Your task to perform on an android device: check the backup settings in the google photos Image 0: 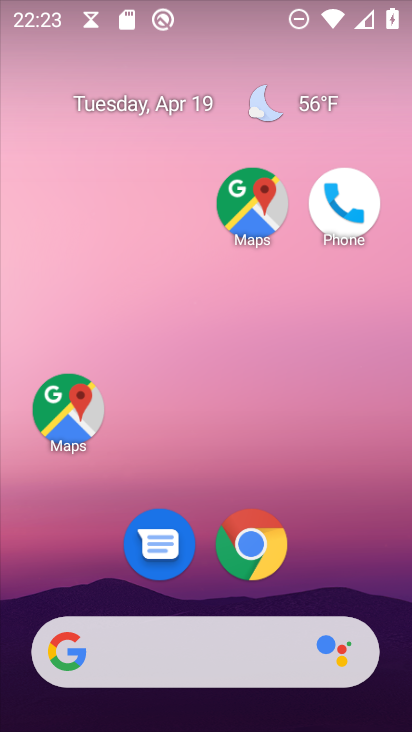
Step 0: drag from (252, 567) to (291, 234)
Your task to perform on an android device: check the backup settings in the google photos Image 1: 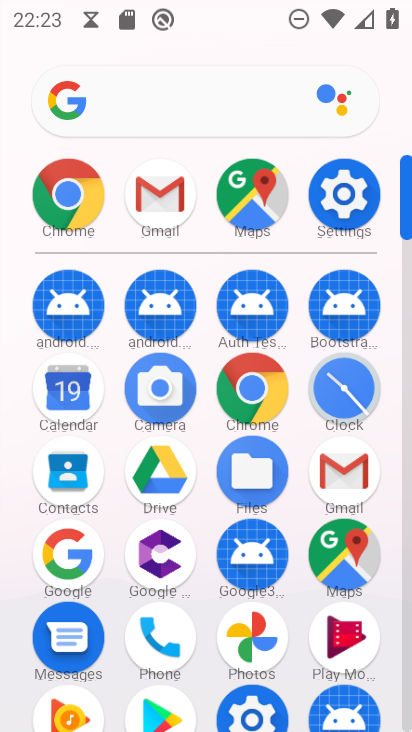
Step 1: click (252, 638)
Your task to perform on an android device: check the backup settings in the google photos Image 2: 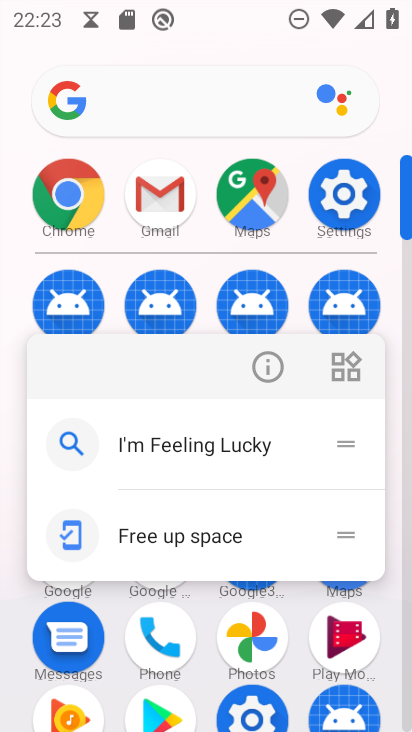
Step 2: click (252, 644)
Your task to perform on an android device: check the backup settings in the google photos Image 3: 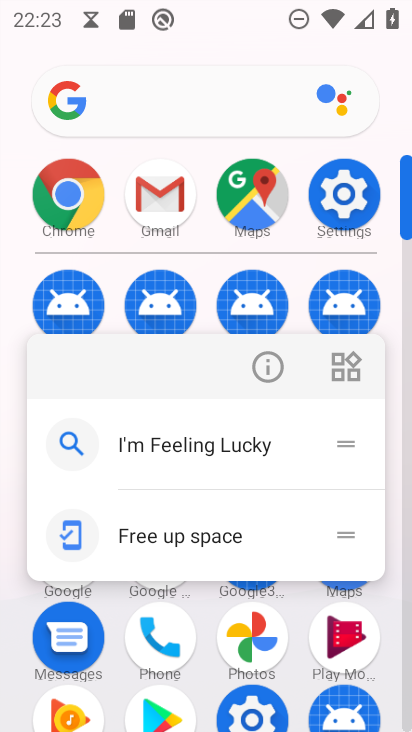
Step 3: click (252, 637)
Your task to perform on an android device: check the backup settings in the google photos Image 4: 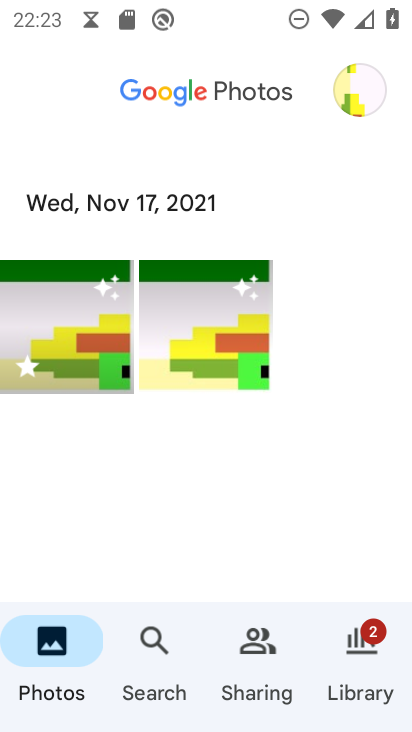
Step 4: click (352, 92)
Your task to perform on an android device: check the backup settings in the google photos Image 5: 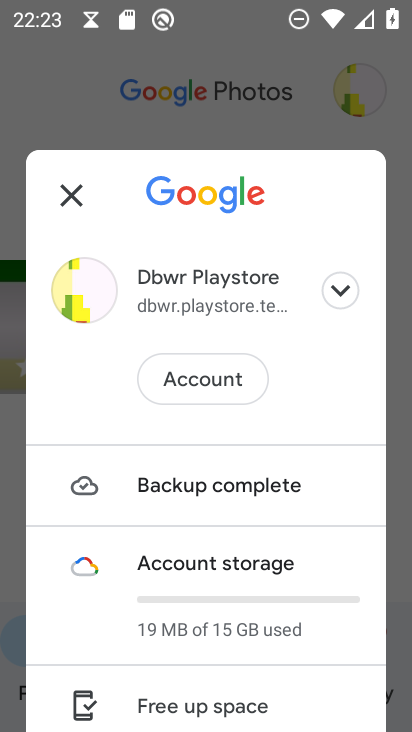
Step 5: drag from (221, 640) to (356, 179)
Your task to perform on an android device: check the backup settings in the google photos Image 6: 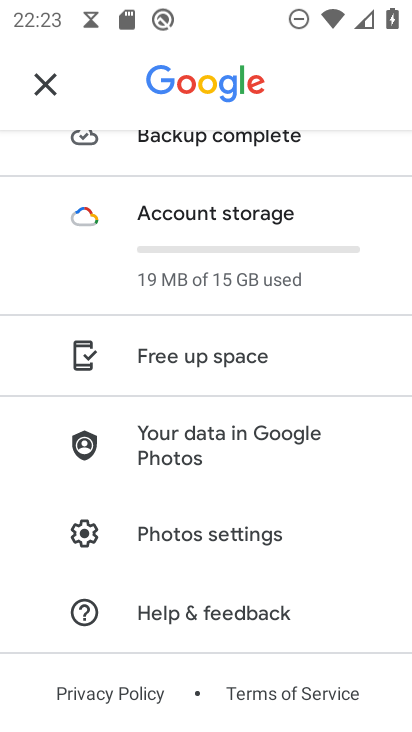
Step 6: click (215, 539)
Your task to perform on an android device: check the backup settings in the google photos Image 7: 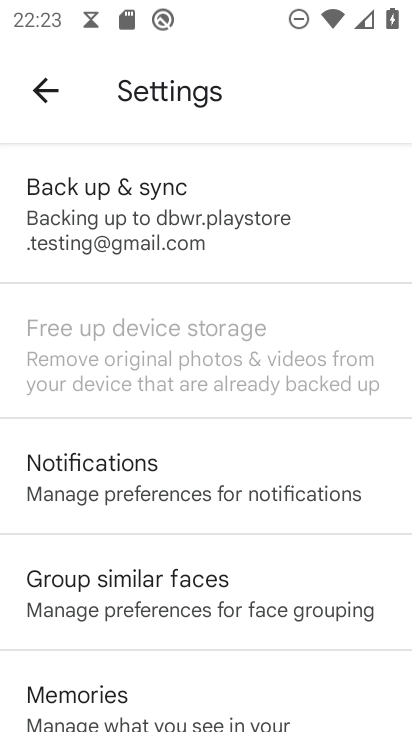
Step 7: click (156, 224)
Your task to perform on an android device: check the backup settings in the google photos Image 8: 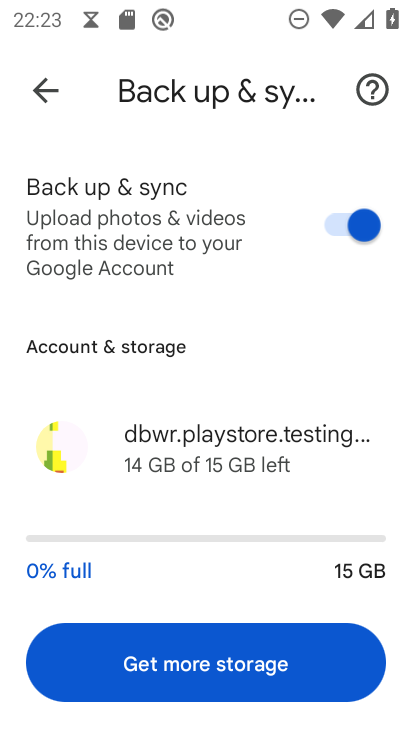
Step 8: task complete